Your task to perform on an android device: all mails in gmail Image 0: 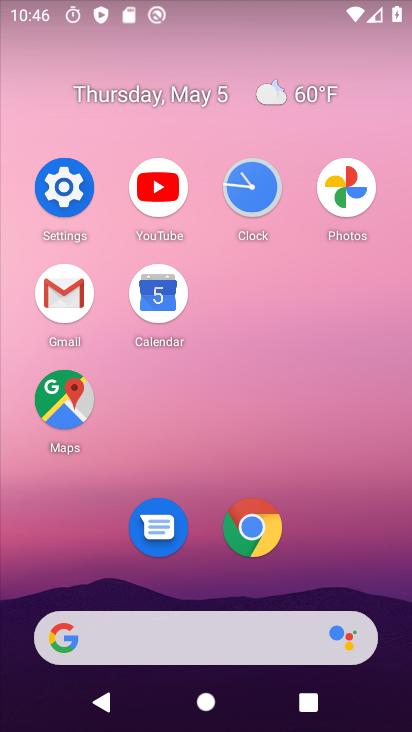
Step 0: click (55, 286)
Your task to perform on an android device: all mails in gmail Image 1: 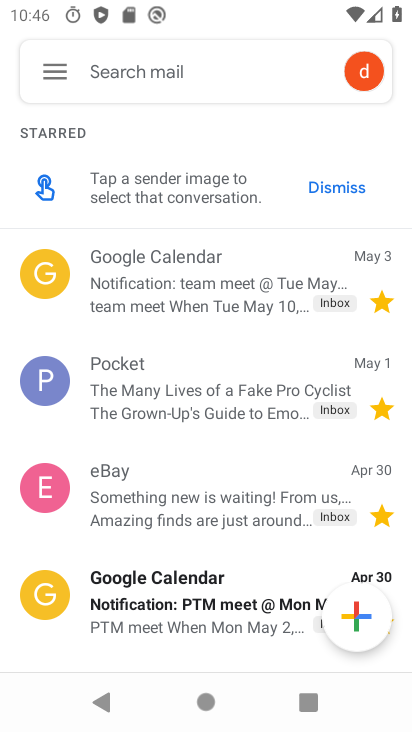
Step 1: click (17, 92)
Your task to perform on an android device: all mails in gmail Image 2: 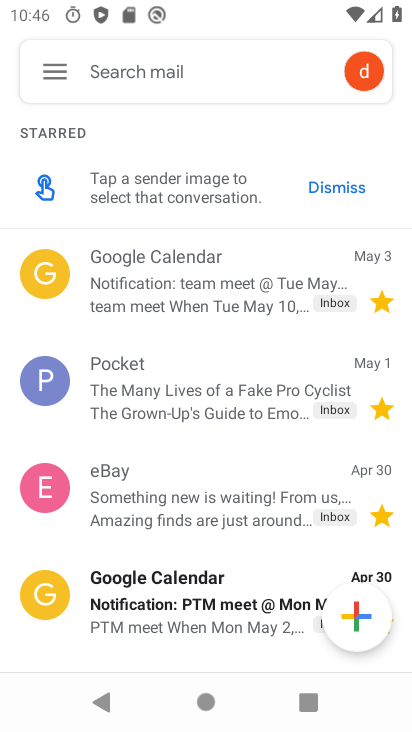
Step 2: click (42, 70)
Your task to perform on an android device: all mails in gmail Image 3: 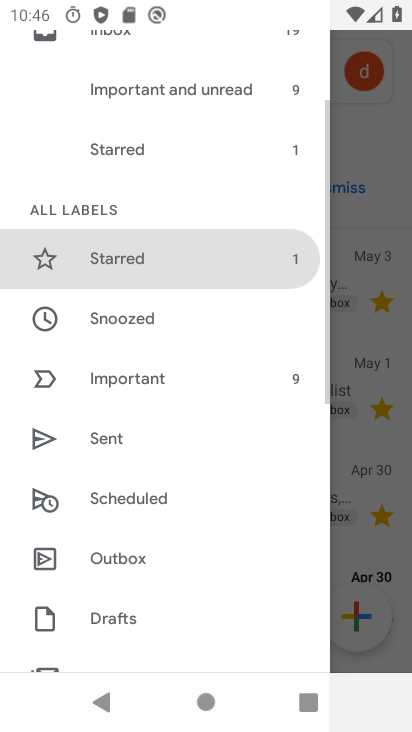
Step 3: drag from (160, 513) to (201, 142)
Your task to perform on an android device: all mails in gmail Image 4: 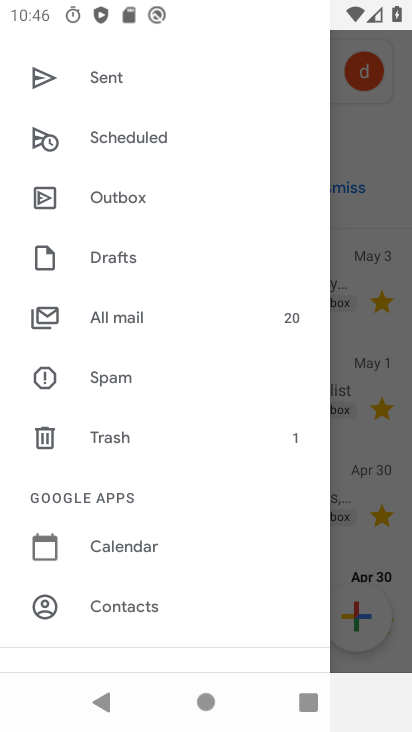
Step 4: click (121, 319)
Your task to perform on an android device: all mails in gmail Image 5: 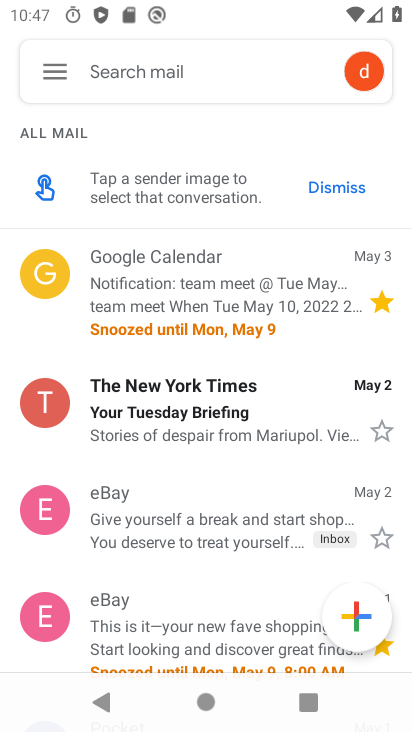
Step 5: click (57, 73)
Your task to perform on an android device: all mails in gmail Image 6: 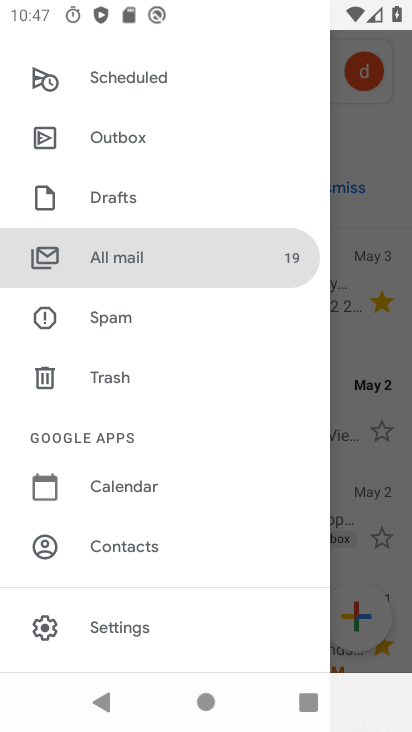
Step 6: task complete